Your task to perform on an android device: allow notifications from all sites in the chrome app Image 0: 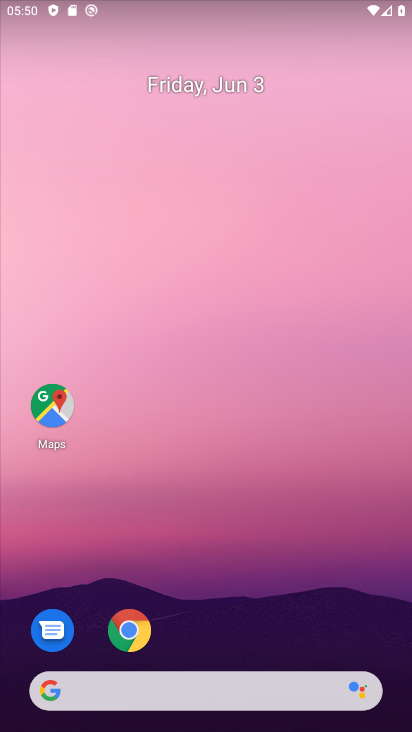
Step 0: click (123, 640)
Your task to perform on an android device: allow notifications from all sites in the chrome app Image 1: 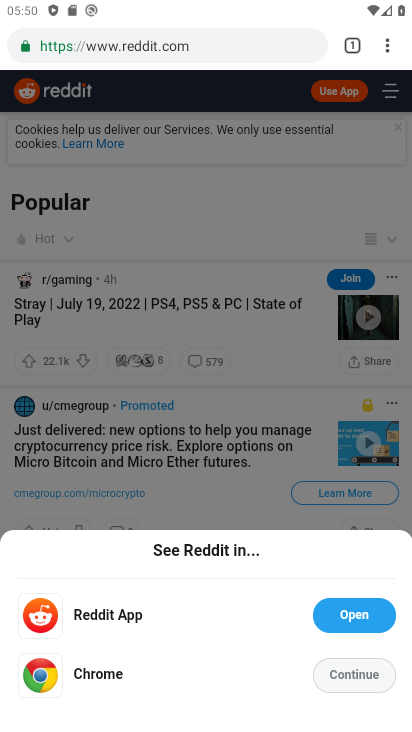
Step 1: click (399, 40)
Your task to perform on an android device: allow notifications from all sites in the chrome app Image 2: 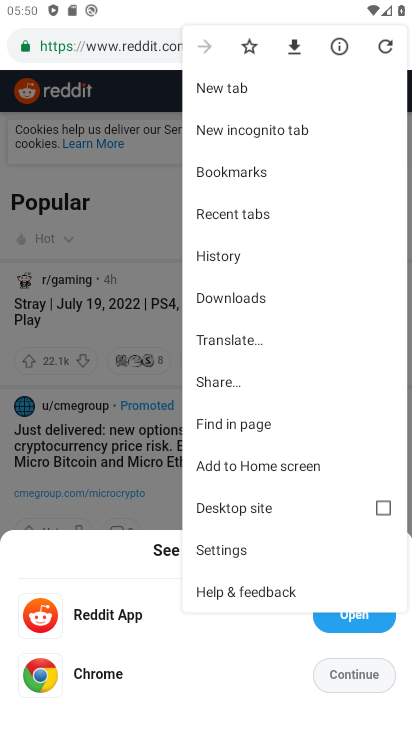
Step 2: click (253, 545)
Your task to perform on an android device: allow notifications from all sites in the chrome app Image 3: 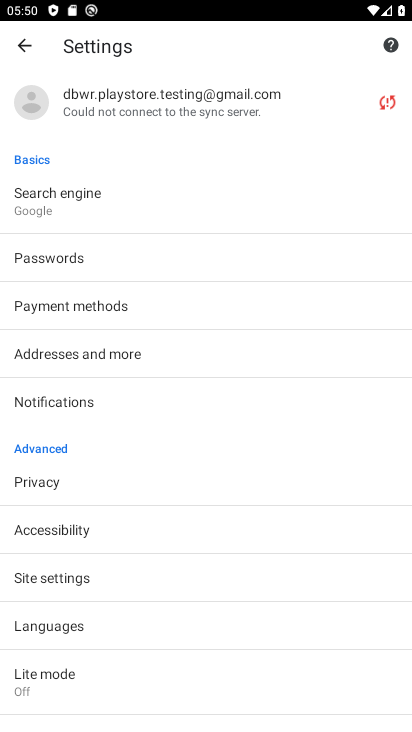
Step 3: click (79, 415)
Your task to perform on an android device: allow notifications from all sites in the chrome app Image 4: 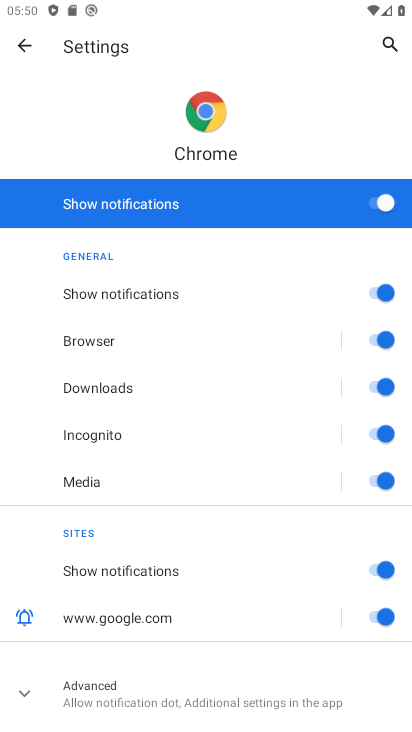
Step 4: task complete